Your task to perform on an android device: turn on bluetooth scan Image 0: 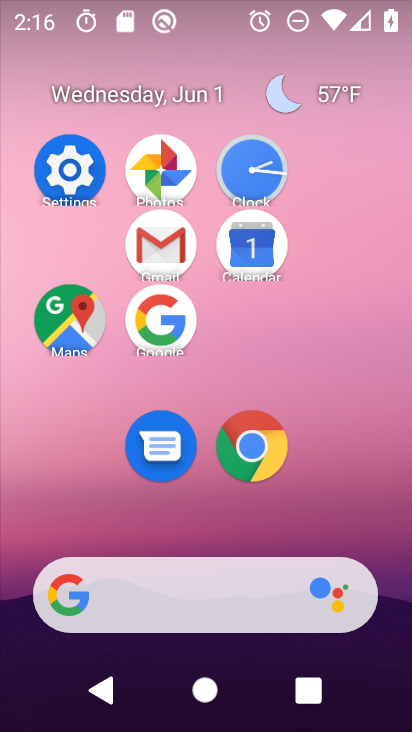
Step 0: click (83, 175)
Your task to perform on an android device: turn on bluetooth scan Image 1: 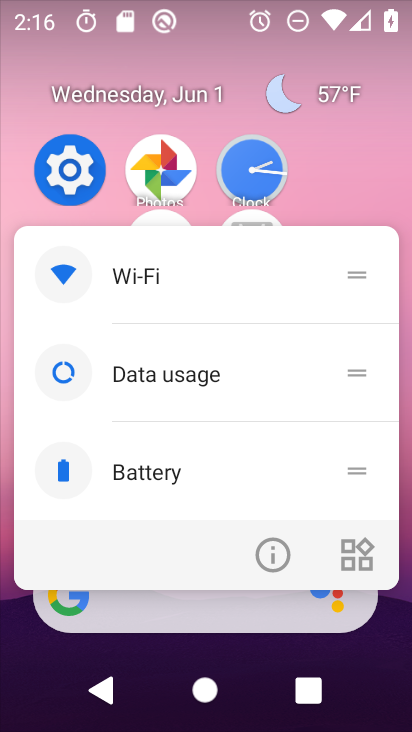
Step 1: click (69, 140)
Your task to perform on an android device: turn on bluetooth scan Image 2: 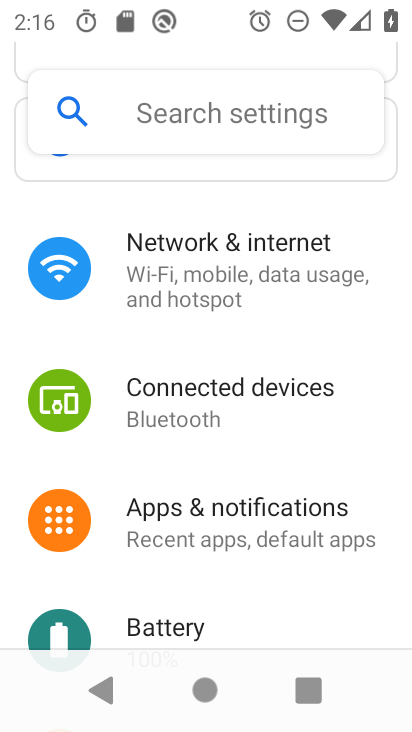
Step 2: drag from (286, 558) to (259, 226)
Your task to perform on an android device: turn on bluetooth scan Image 3: 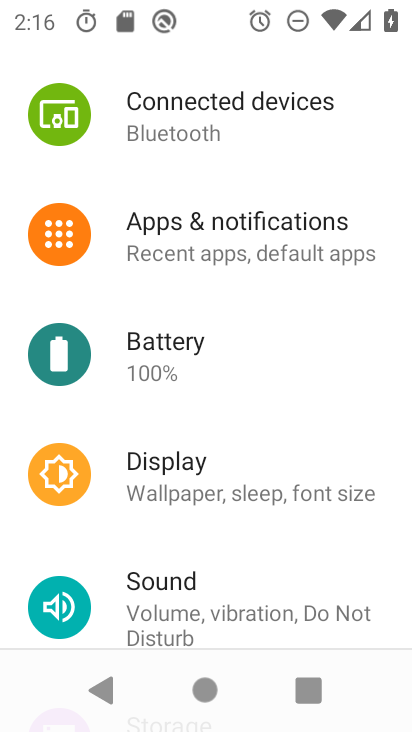
Step 3: drag from (250, 565) to (216, 215)
Your task to perform on an android device: turn on bluetooth scan Image 4: 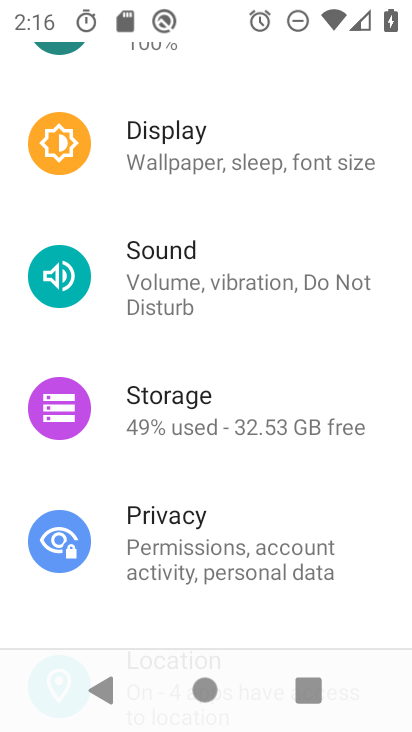
Step 4: drag from (208, 537) to (176, 138)
Your task to perform on an android device: turn on bluetooth scan Image 5: 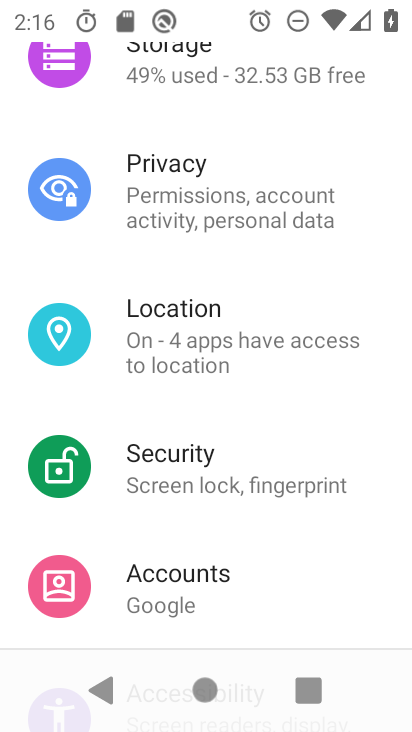
Step 5: click (206, 345)
Your task to perform on an android device: turn on bluetooth scan Image 6: 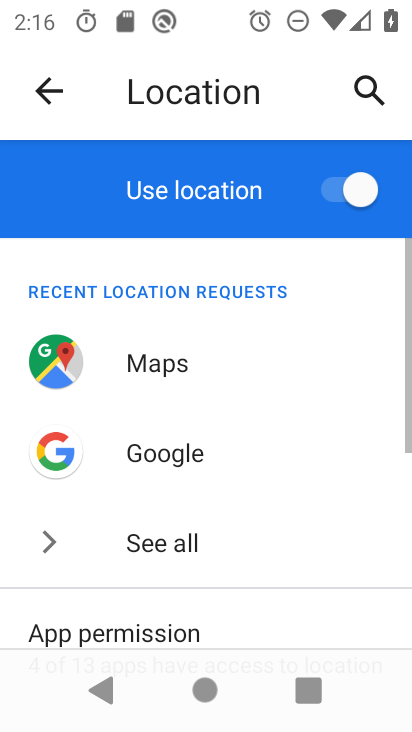
Step 6: drag from (240, 512) to (226, 160)
Your task to perform on an android device: turn on bluetooth scan Image 7: 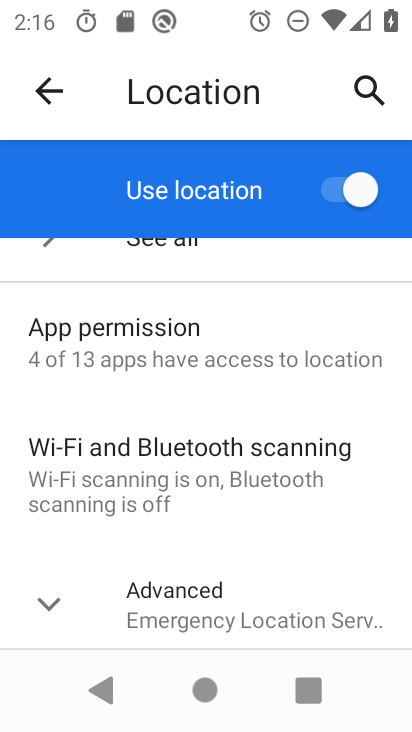
Step 7: click (207, 496)
Your task to perform on an android device: turn on bluetooth scan Image 8: 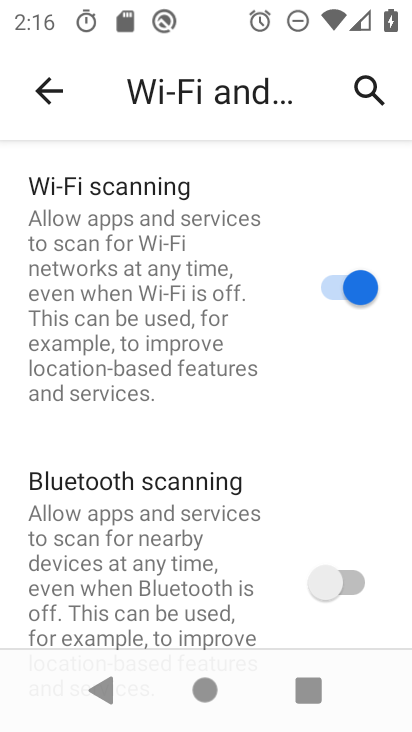
Step 8: click (328, 570)
Your task to perform on an android device: turn on bluetooth scan Image 9: 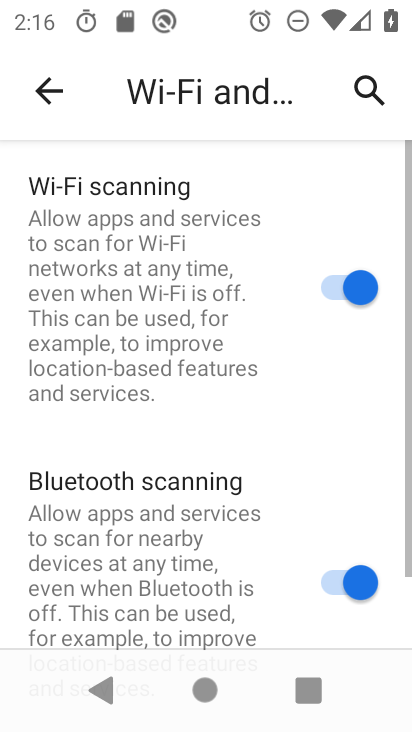
Step 9: task complete